Your task to perform on an android device: Go to Android settings Image 0: 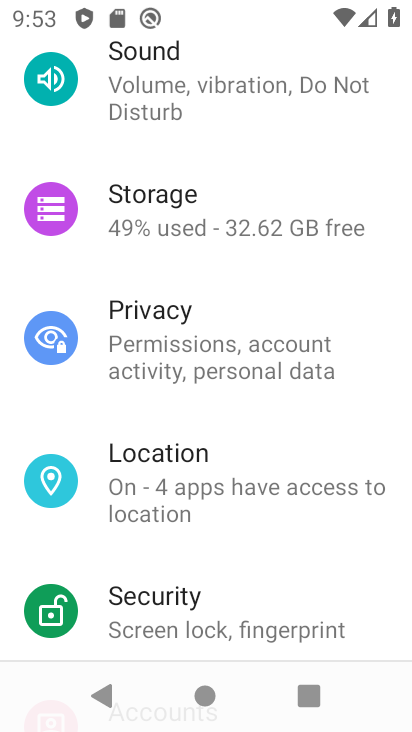
Step 0: drag from (274, 606) to (192, 20)
Your task to perform on an android device: Go to Android settings Image 1: 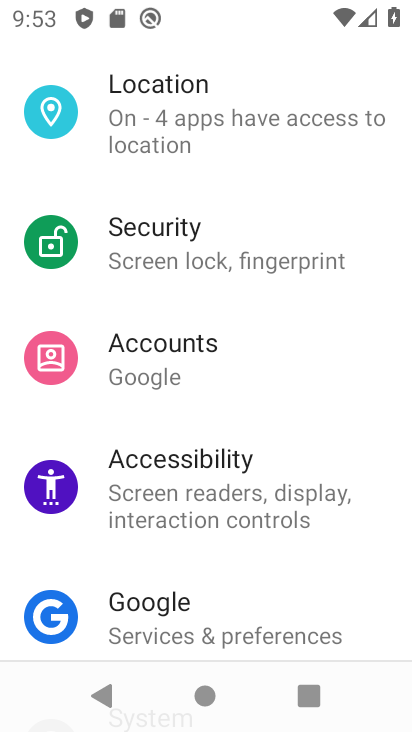
Step 1: task complete